Your task to perform on an android device: Check the weather Image 0: 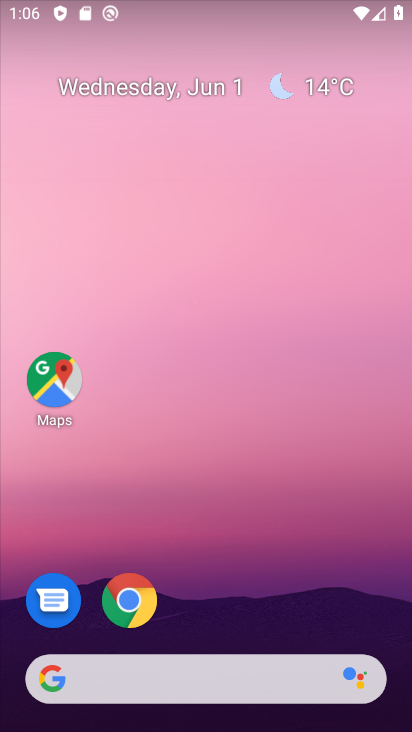
Step 0: click (326, 96)
Your task to perform on an android device: Check the weather Image 1: 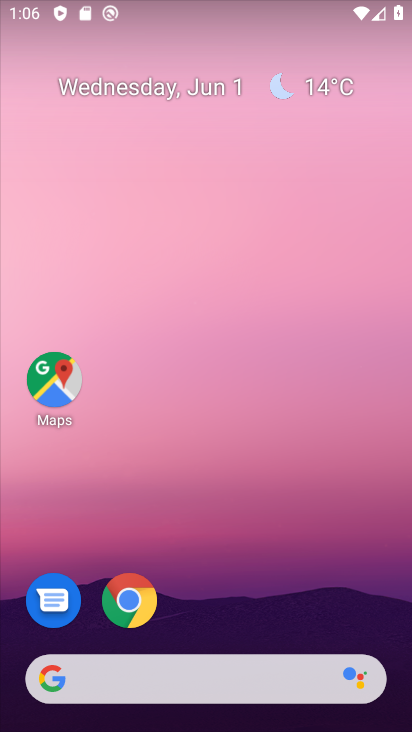
Step 1: click (309, 83)
Your task to perform on an android device: Check the weather Image 2: 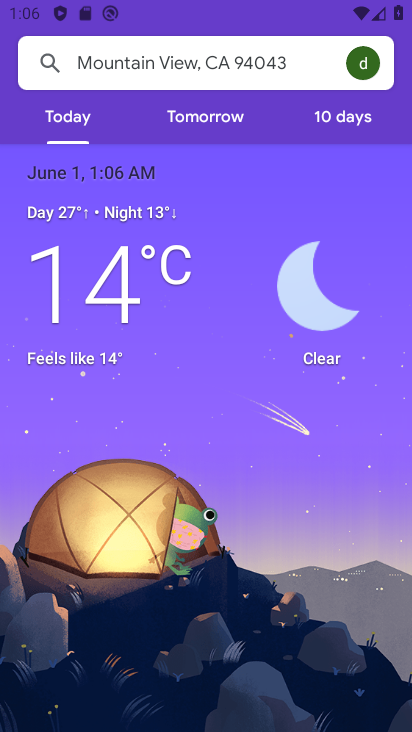
Step 2: task complete